Your task to perform on an android device: turn smart compose on in the gmail app Image 0: 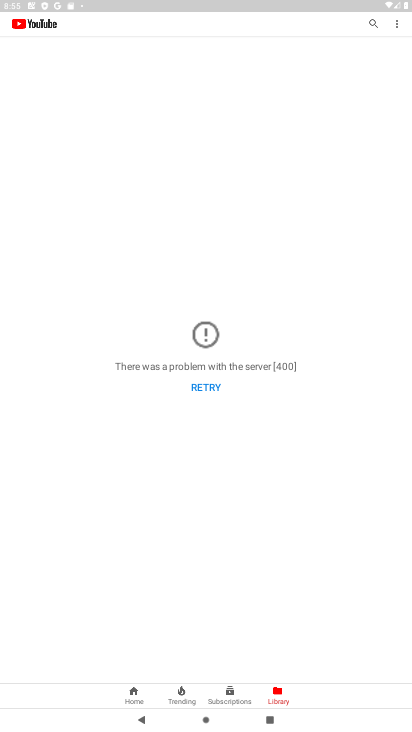
Step 0: press home button
Your task to perform on an android device: turn smart compose on in the gmail app Image 1: 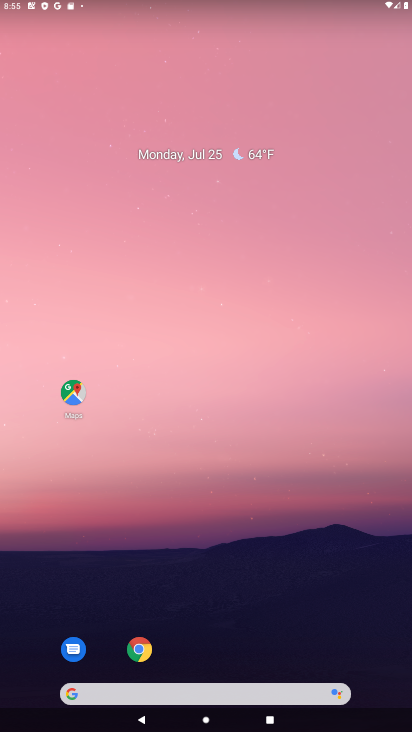
Step 1: drag from (292, 605) to (195, 105)
Your task to perform on an android device: turn smart compose on in the gmail app Image 2: 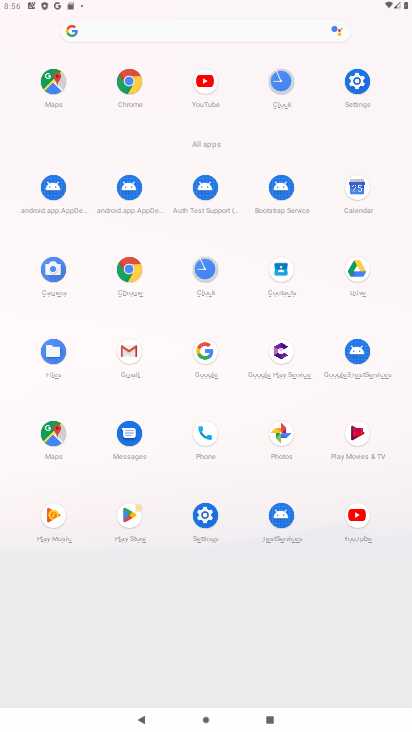
Step 2: click (133, 355)
Your task to perform on an android device: turn smart compose on in the gmail app Image 3: 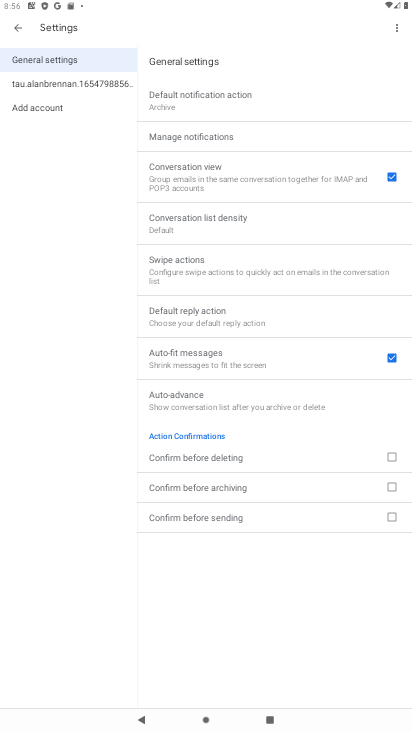
Step 3: click (73, 79)
Your task to perform on an android device: turn smart compose on in the gmail app Image 4: 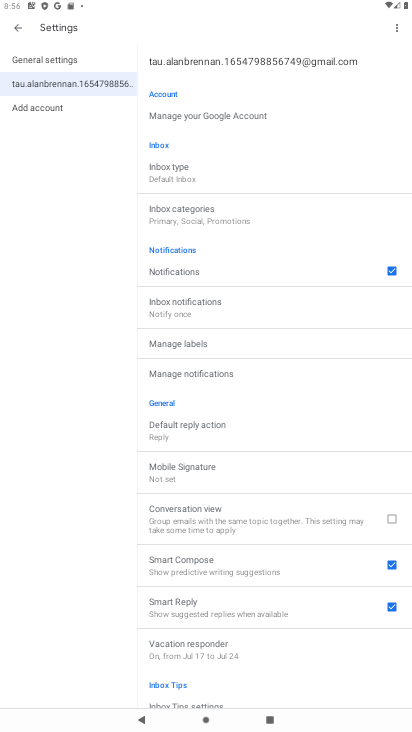
Step 4: task complete